Your task to perform on an android device: turn pop-ups on in chrome Image 0: 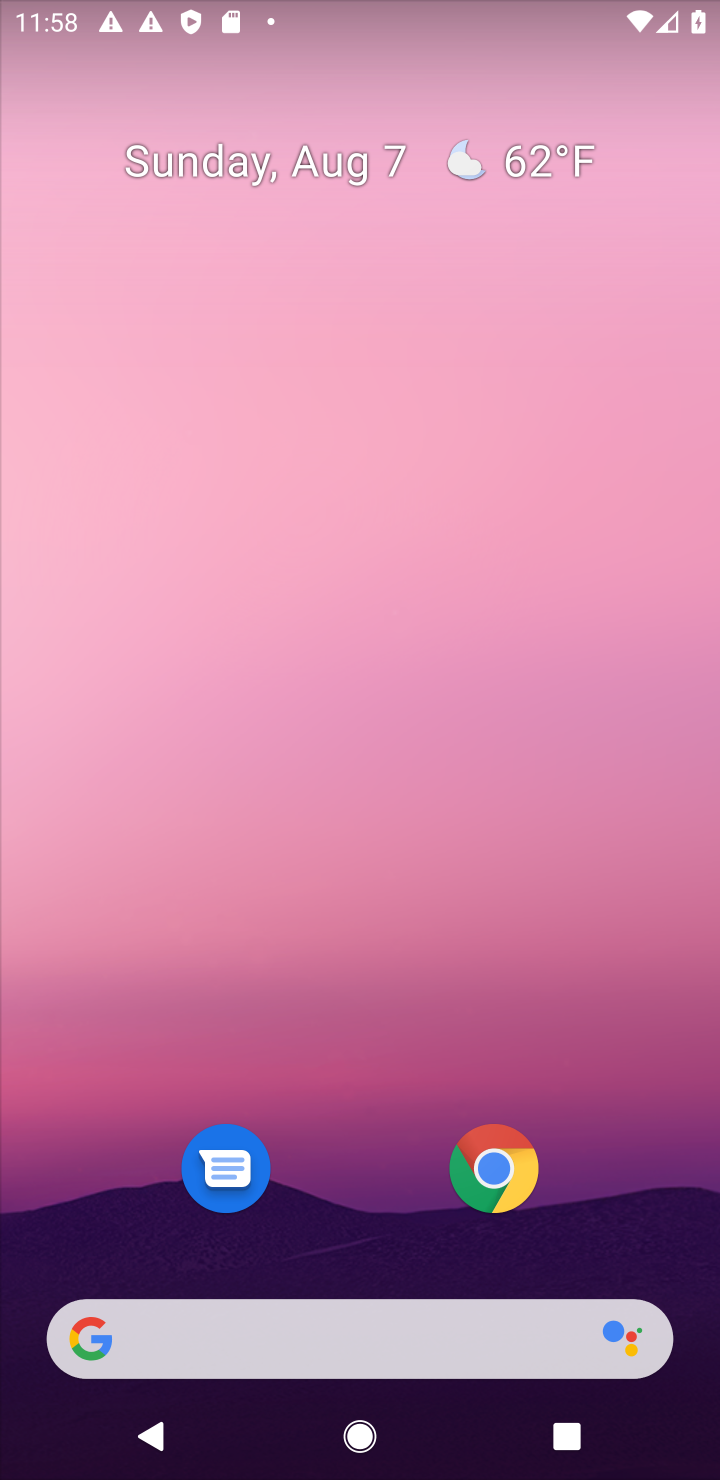
Step 0: click (467, 1170)
Your task to perform on an android device: turn pop-ups on in chrome Image 1: 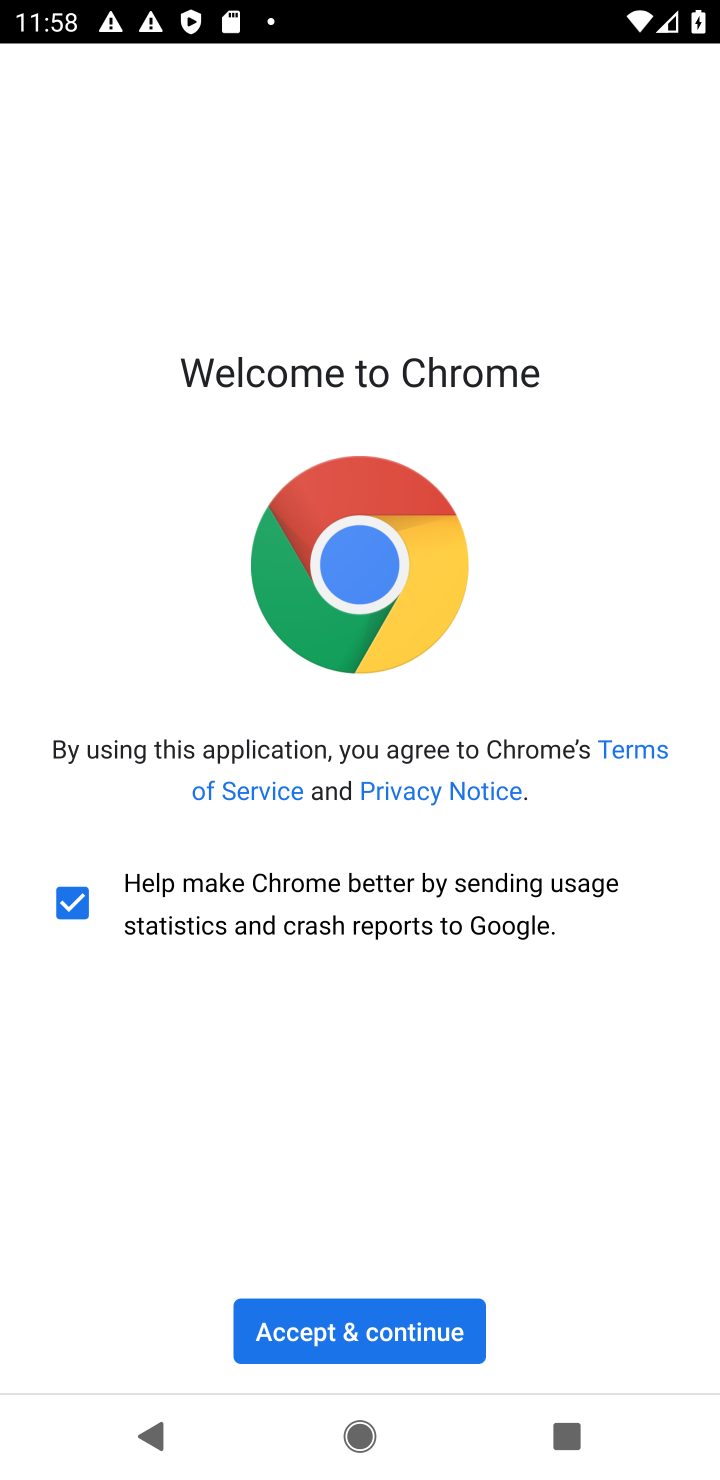
Step 1: click (396, 1331)
Your task to perform on an android device: turn pop-ups on in chrome Image 2: 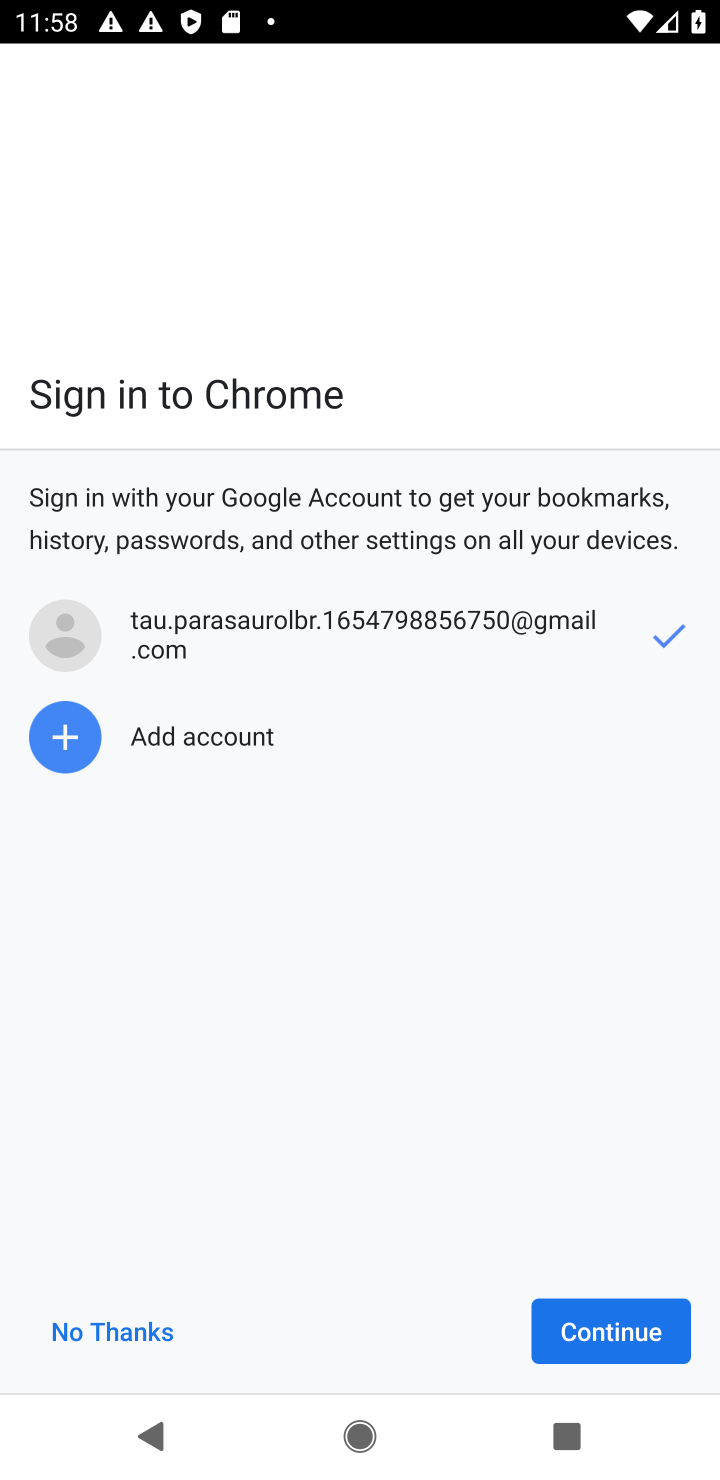
Step 2: click (584, 1287)
Your task to perform on an android device: turn pop-ups on in chrome Image 3: 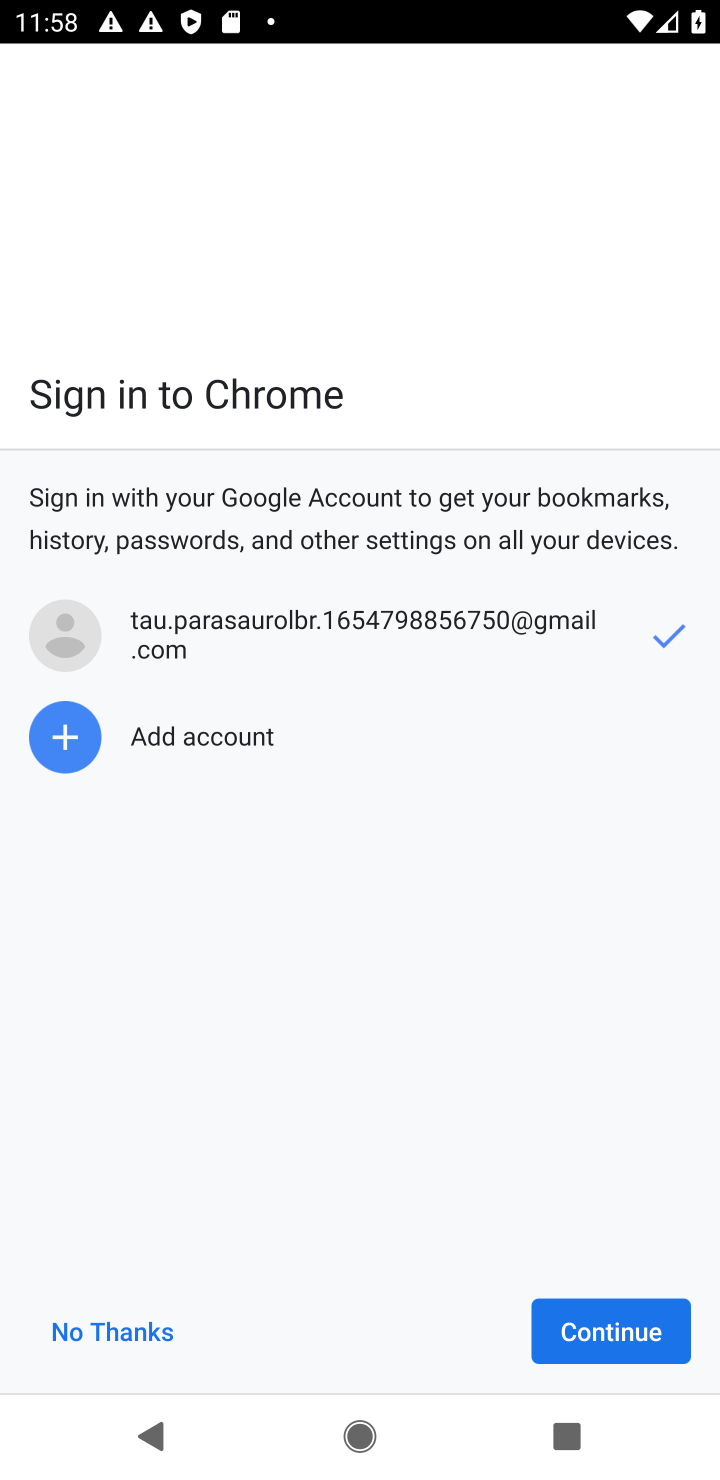
Step 3: click (596, 1313)
Your task to perform on an android device: turn pop-ups on in chrome Image 4: 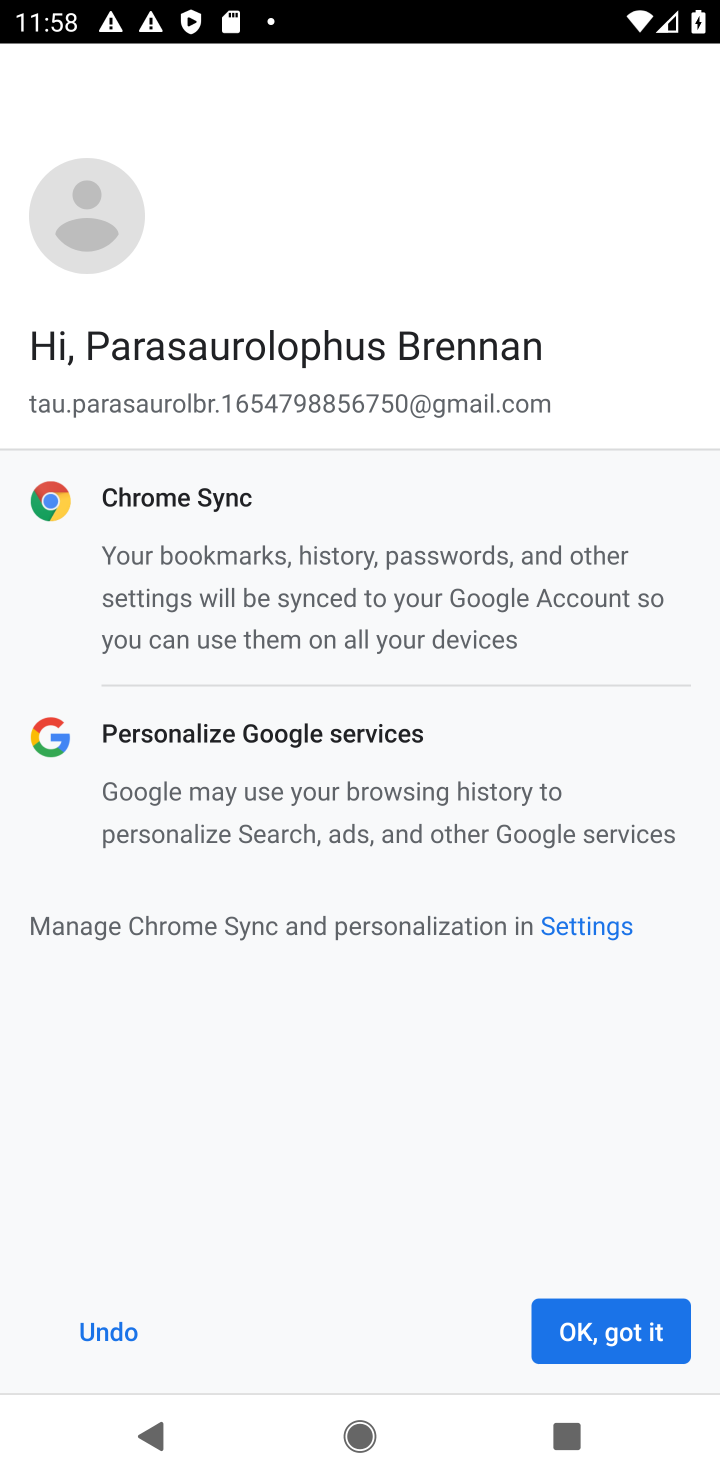
Step 4: click (603, 1299)
Your task to perform on an android device: turn pop-ups on in chrome Image 5: 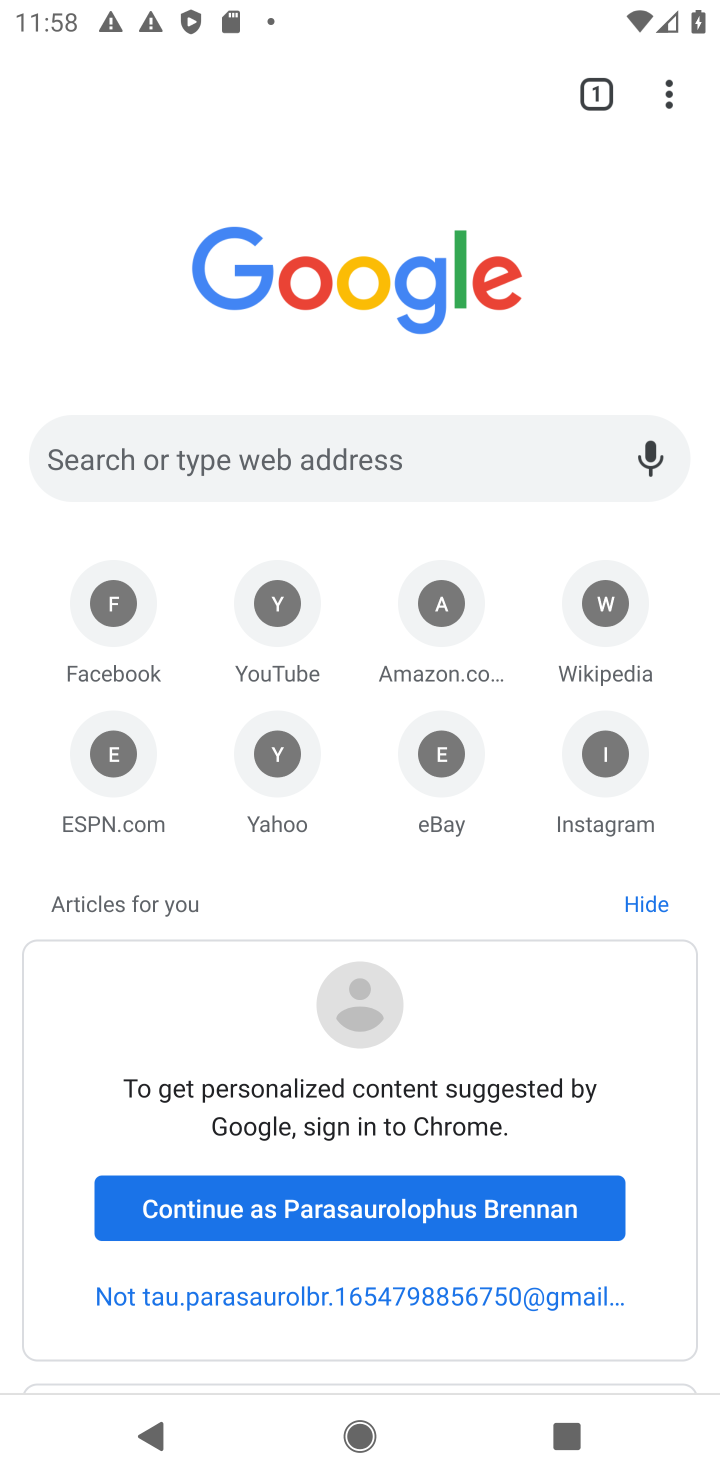
Step 5: task complete